Your task to perform on an android device: Go to Android settings Image 0: 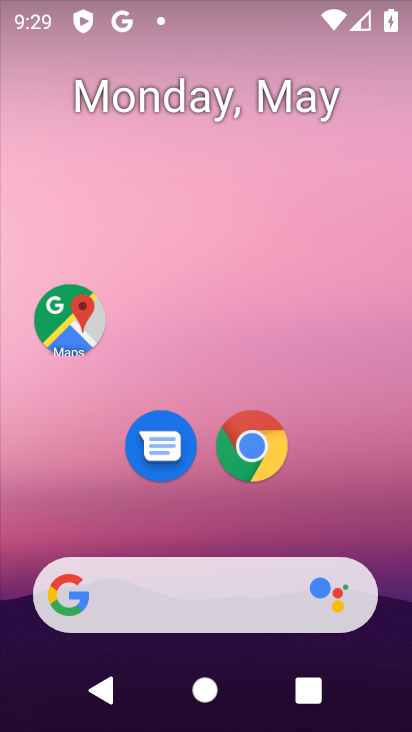
Step 0: drag from (93, 574) to (205, 87)
Your task to perform on an android device: Go to Android settings Image 1: 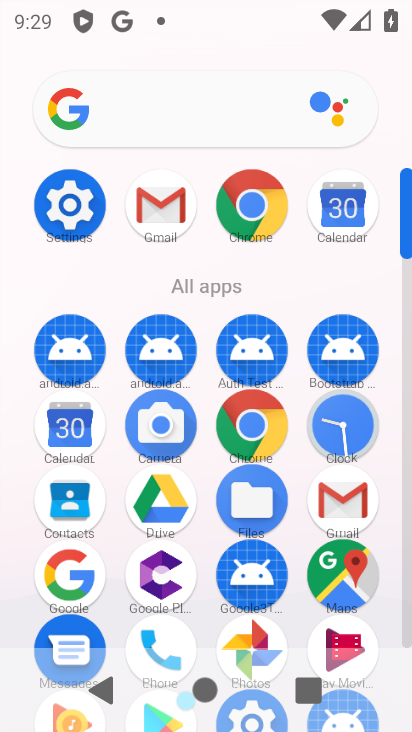
Step 1: drag from (91, 545) to (184, 296)
Your task to perform on an android device: Go to Android settings Image 2: 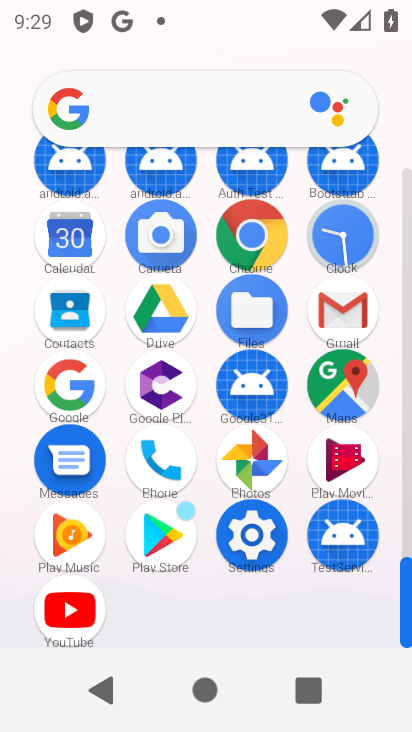
Step 2: click (242, 550)
Your task to perform on an android device: Go to Android settings Image 3: 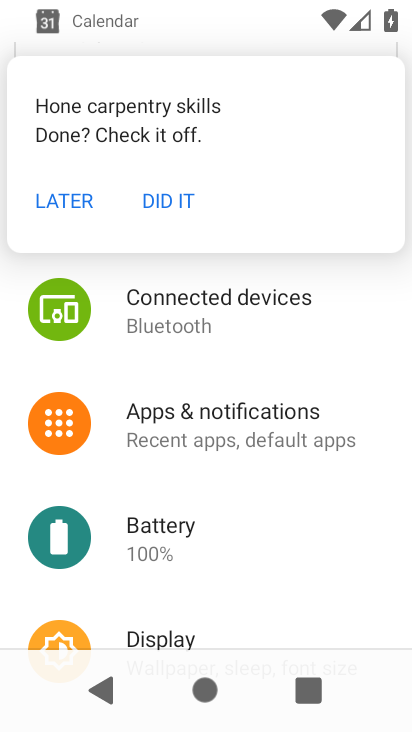
Step 3: task complete